Your task to perform on an android device: Go to Yahoo.com Image 0: 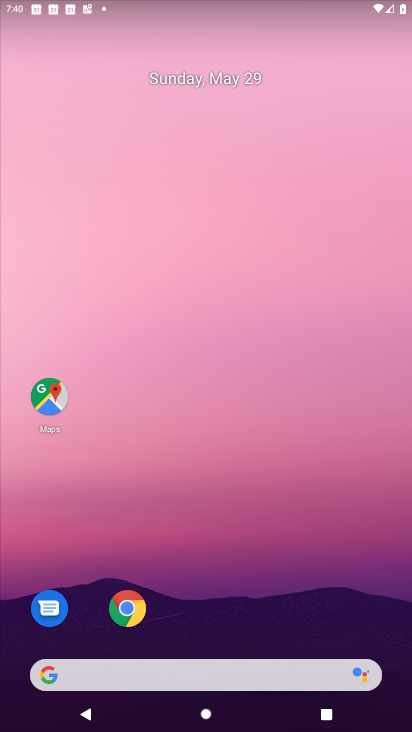
Step 0: click (128, 614)
Your task to perform on an android device: Go to Yahoo.com Image 1: 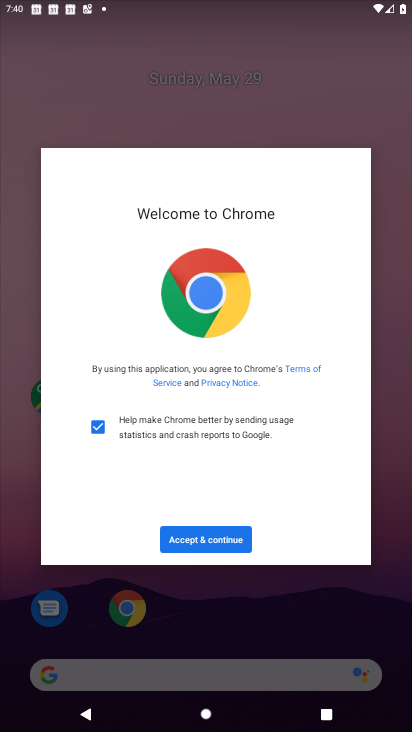
Step 1: click (210, 546)
Your task to perform on an android device: Go to Yahoo.com Image 2: 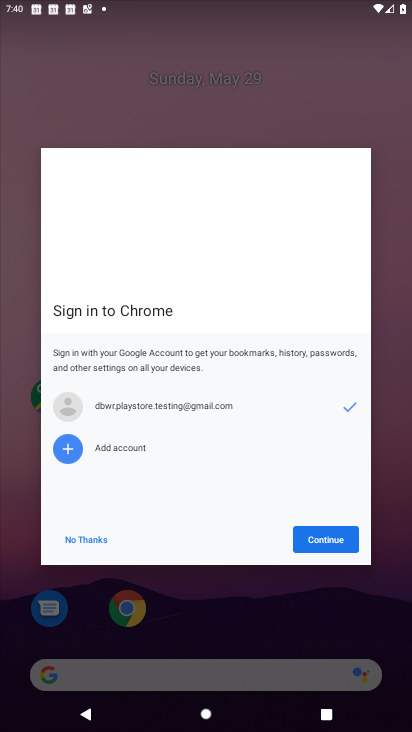
Step 2: click (317, 536)
Your task to perform on an android device: Go to Yahoo.com Image 3: 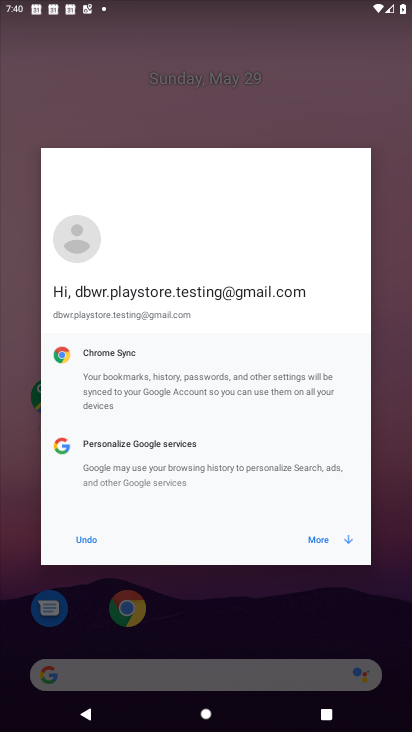
Step 3: click (317, 536)
Your task to perform on an android device: Go to Yahoo.com Image 4: 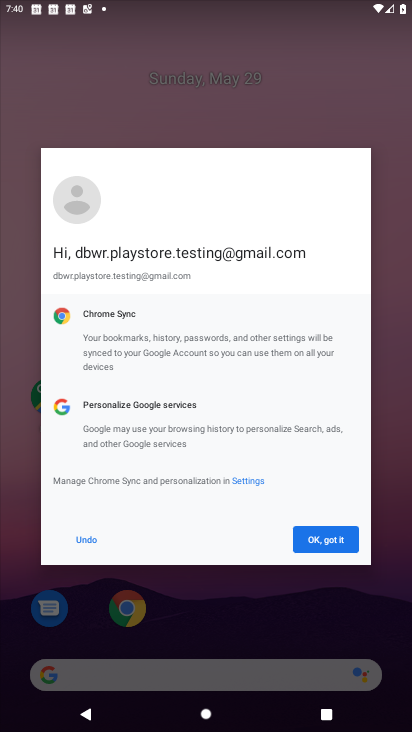
Step 4: click (321, 540)
Your task to perform on an android device: Go to Yahoo.com Image 5: 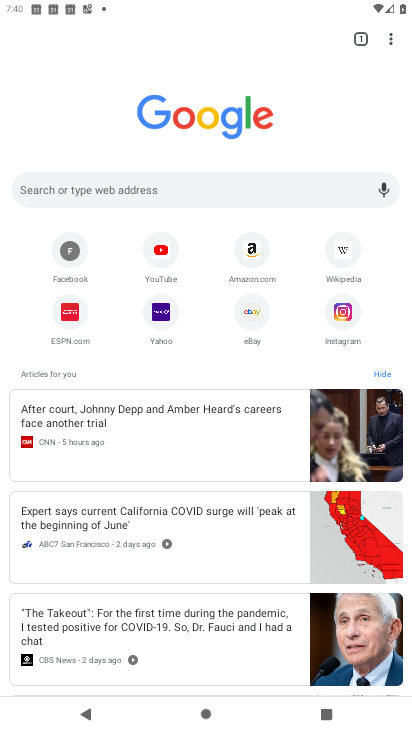
Step 5: click (161, 322)
Your task to perform on an android device: Go to Yahoo.com Image 6: 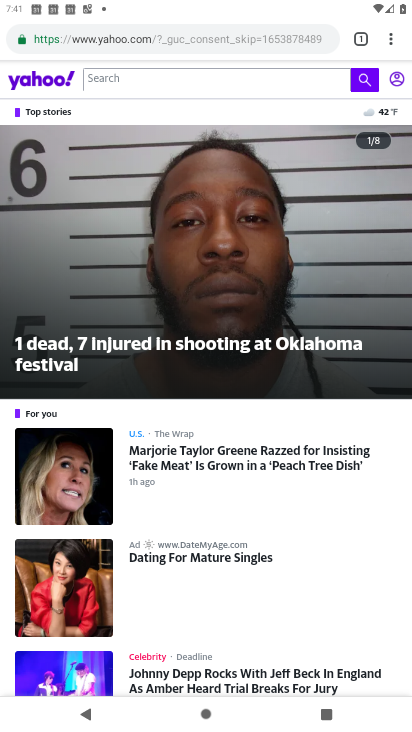
Step 6: task complete